Your task to perform on an android device: Open Chrome and go to settings Image 0: 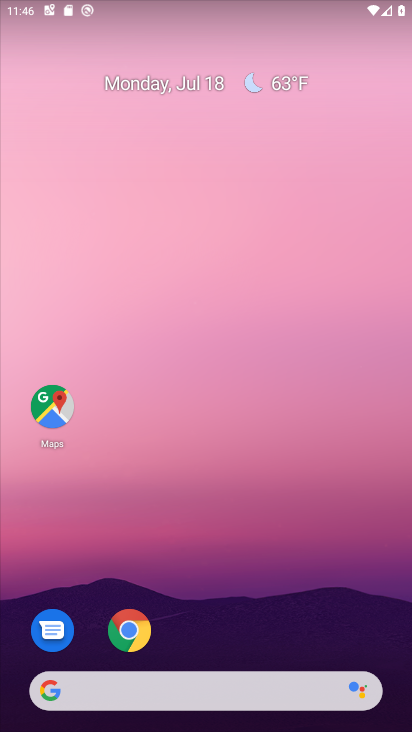
Step 0: click (133, 630)
Your task to perform on an android device: Open Chrome and go to settings Image 1: 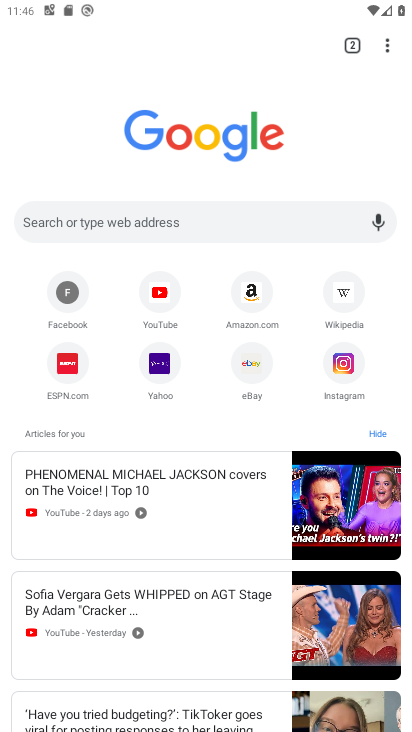
Step 1: click (385, 39)
Your task to perform on an android device: Open Chrome and go to settings Image 2: 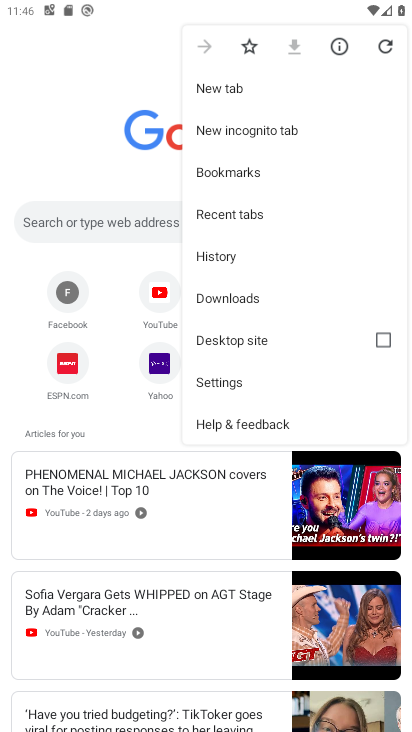
Step 2: click (231, 388)
Your task to perform on an android device: Open Chrome and go to settings Image 3: 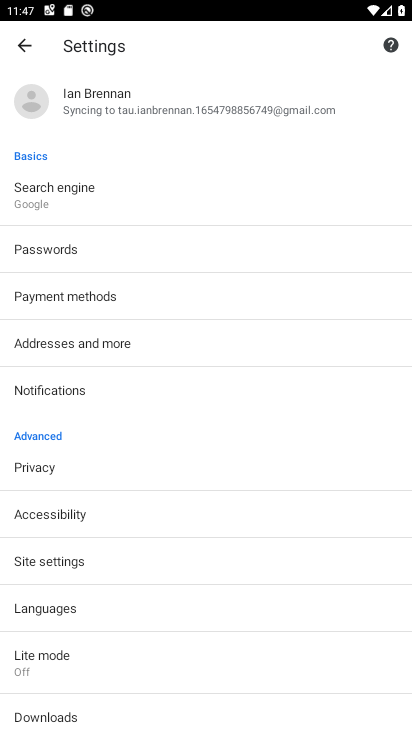
Step 3: task complete